Your task to perform on an android device: Open eBay Image 0: 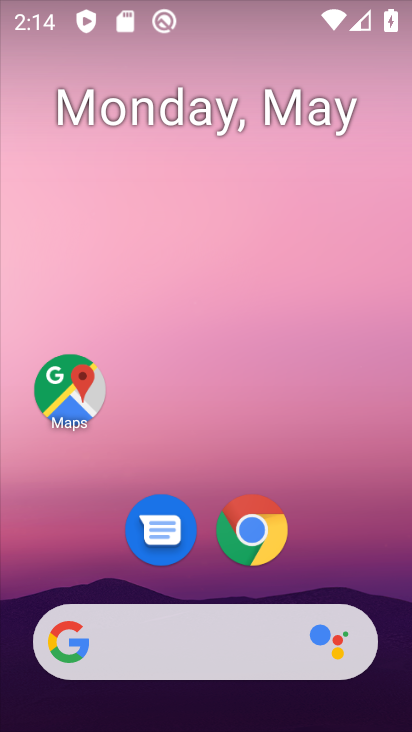
Step 0: click (250, 520)
Your task to perform on an android device: Open eBay Image 1: 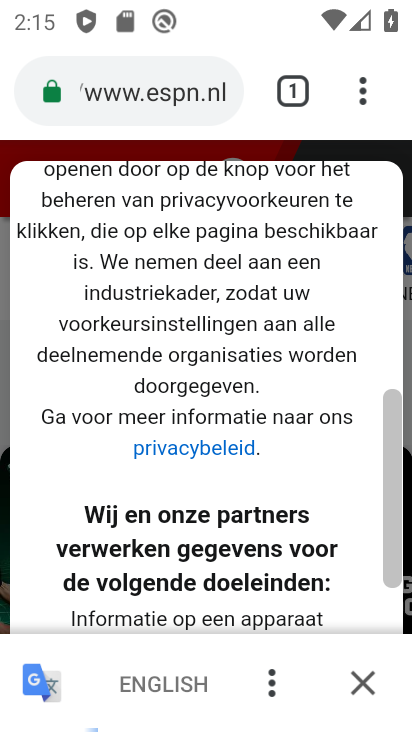
Step 1: click (283, 86)
Your task to perform on an android device: Open eBay Image 2: 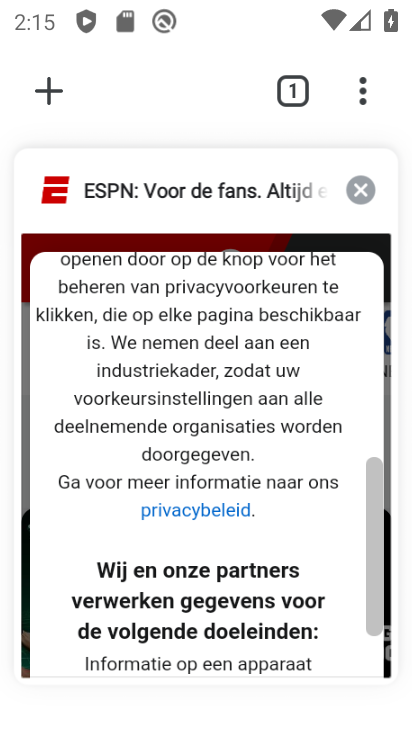
Step 2: click (60, 80)
Your task to perform on an android device: Open eBay Image 3: 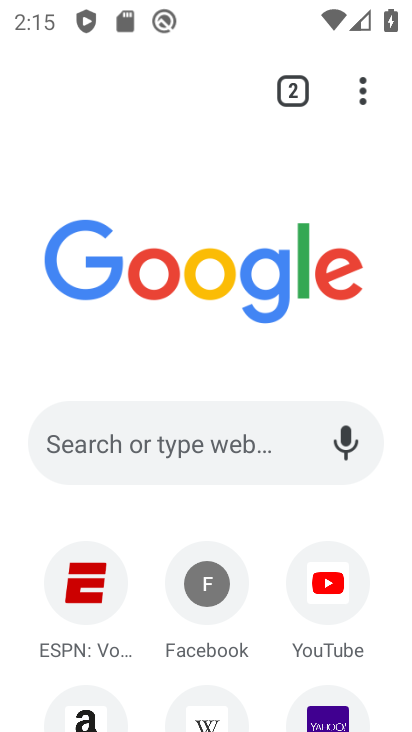
Step 3: drag from (209, 624) to (208, 224)
Your task to perform on an android device: Open eBay Image 4: 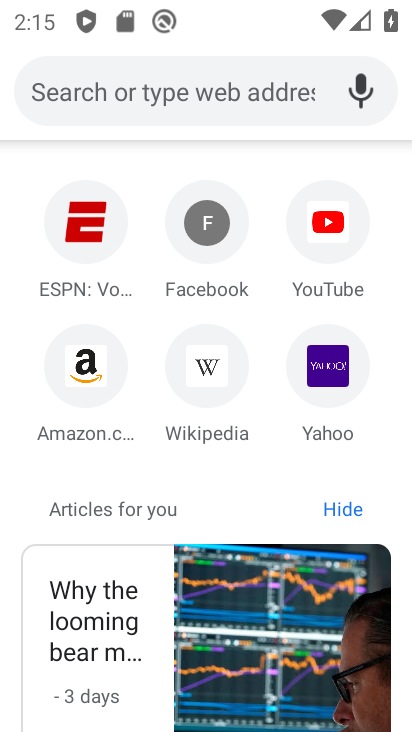
Step 4: click (139, 89)
Your task to perform on an android device: Open eBay Image 5: 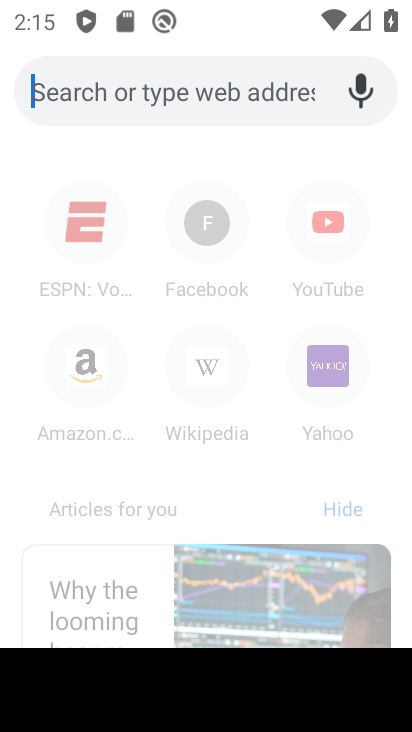
Step 5: type "ebay"
Your task to perform on an android device: Open eBay Image 6: 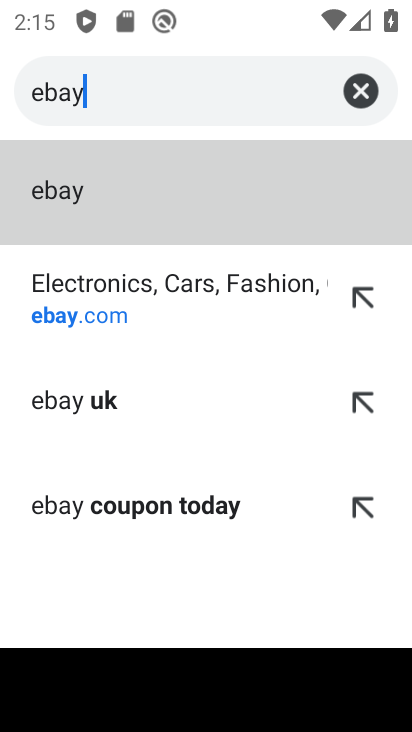
Step 6: click (128, 295)
Your task to perform on an android device: Open eBay Image 7: 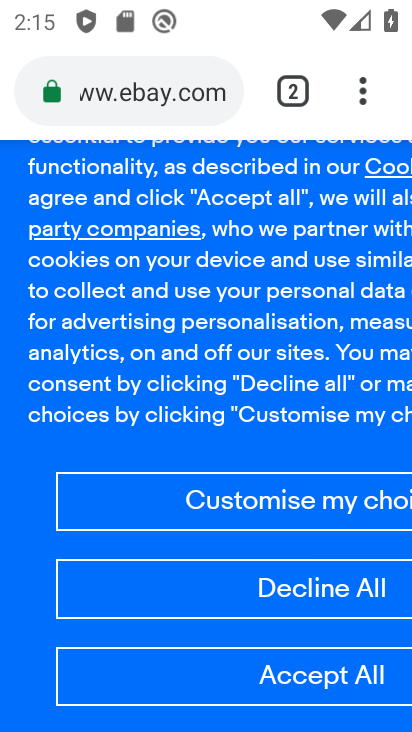
Step 7: task complete